Your task to perform on an android device: check storage Image 0: 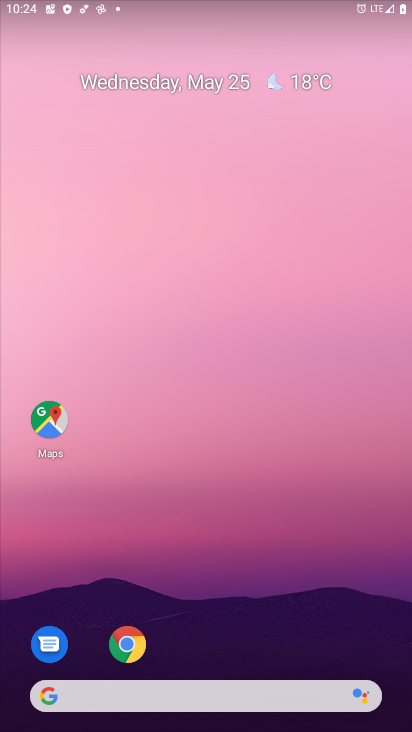
Step 0: drag from (206, 655) to (210, 148)
Your task to perform on an android device: check storage Image 1: 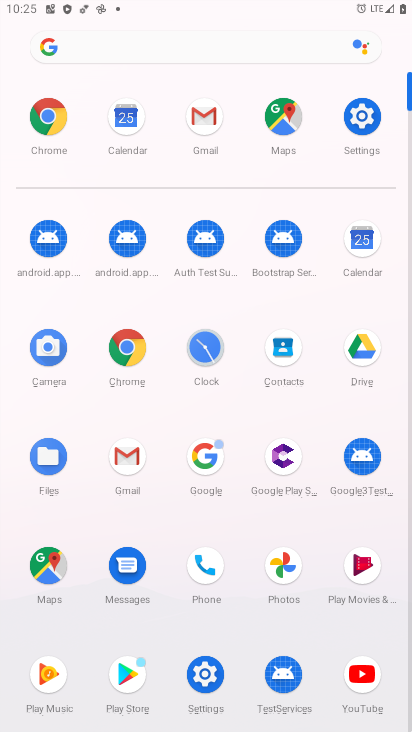
Step 1: click (355, 99)
Your task to perform on an android device: check storage Image 2: 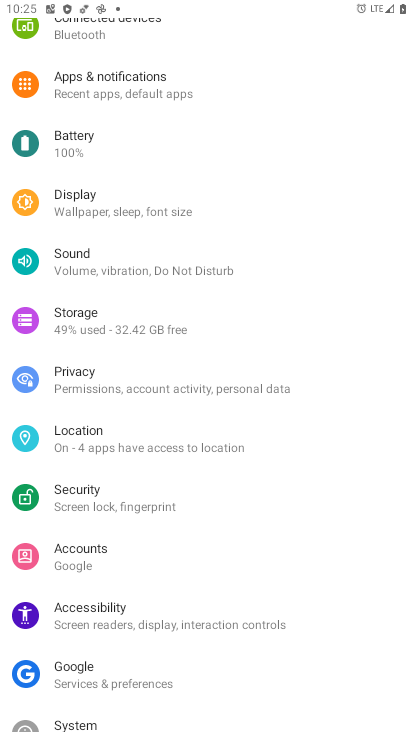
Step 2: click (100, 320)
Your task to perform on an android device: check storage Image 3: 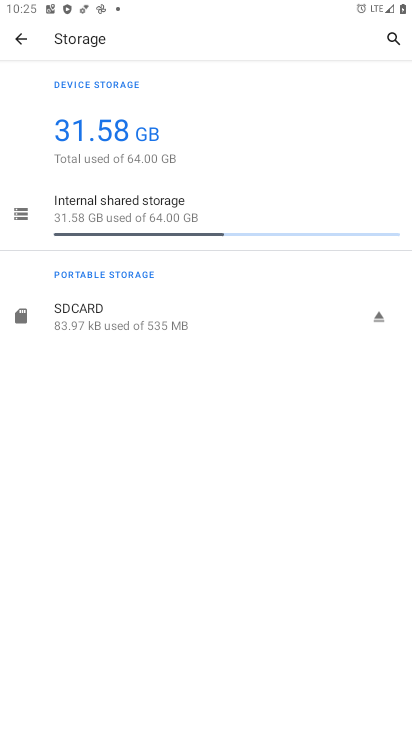
Step 3: task complete